Your task to perform on an android device: Go to Yahoo.com Image 0: 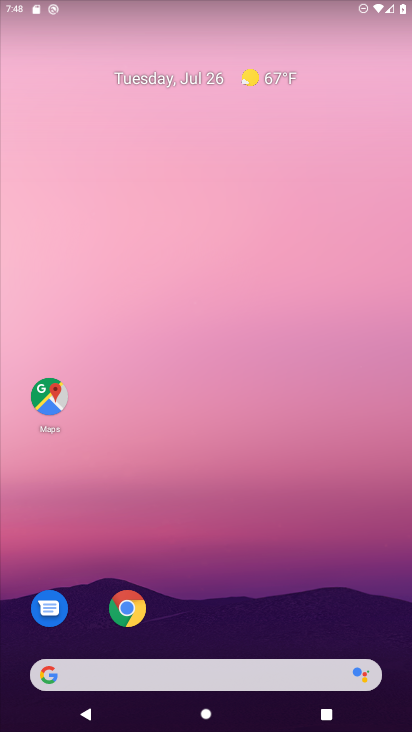
Step 0: drag from (219, 624) to (235, 7)
Your task to perform on an android device: Go to Yahoo.com Image 1: 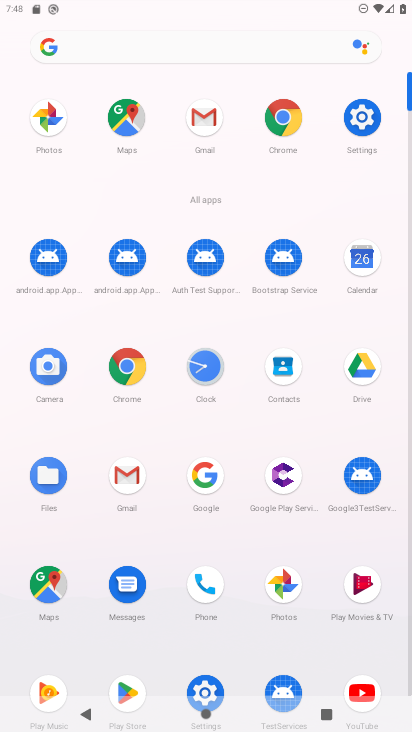
Step 1: drag from (245, 557) to (245, 293)
Your task to perform on an android device: Go to Yahoo.com Image 2: 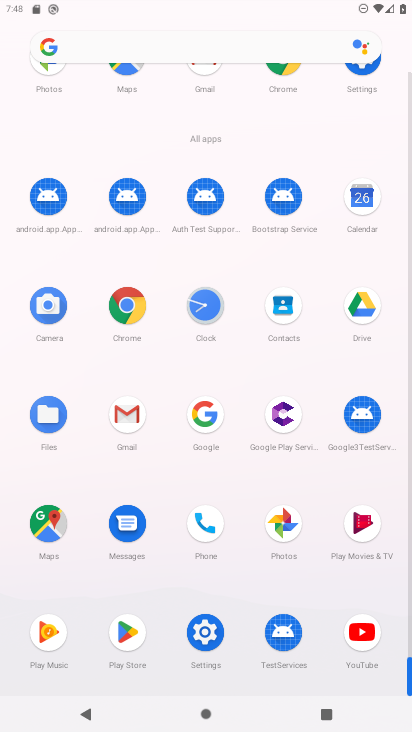
Step 2: click (127, 316)
Your task to perform on an android device: Go to Yahoo.com Image 3: 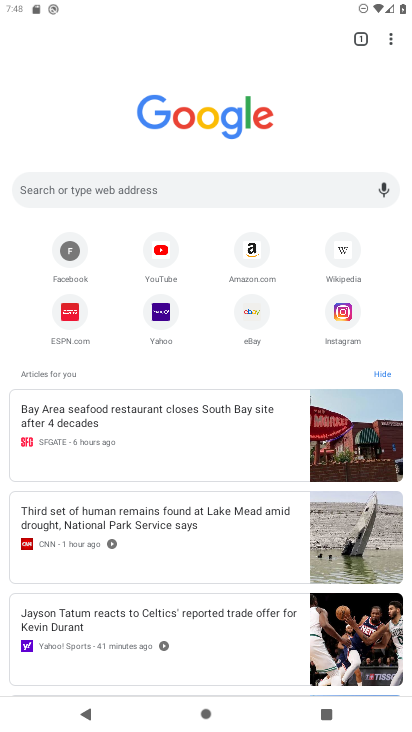
Step 3: click (158, 327)
Your task to perform on an android device: Go to Yahoo.com Image 4: 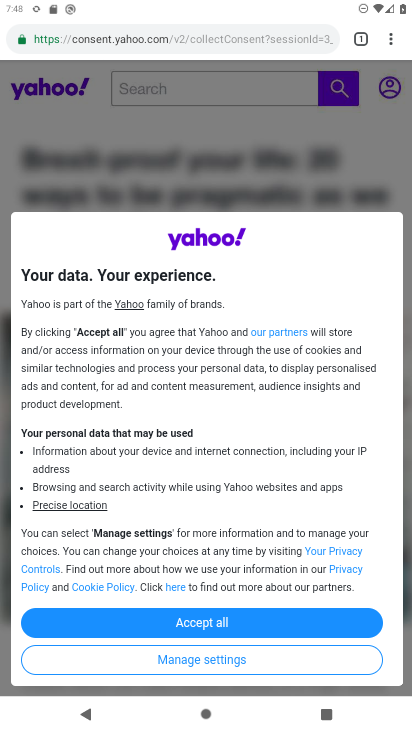
Step 4: task complete